Your task to perform on an android device: turn on sleep mode Image 0: 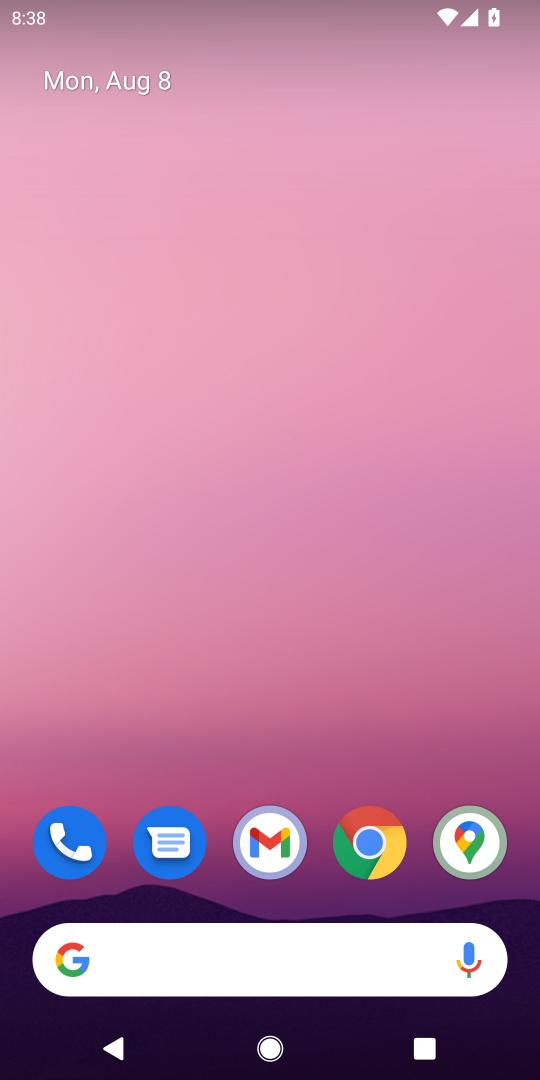
Step 0: drag from (297, 786) to (267, 232)
Your task to perform on an android device: turn on sleep mode Image 1: 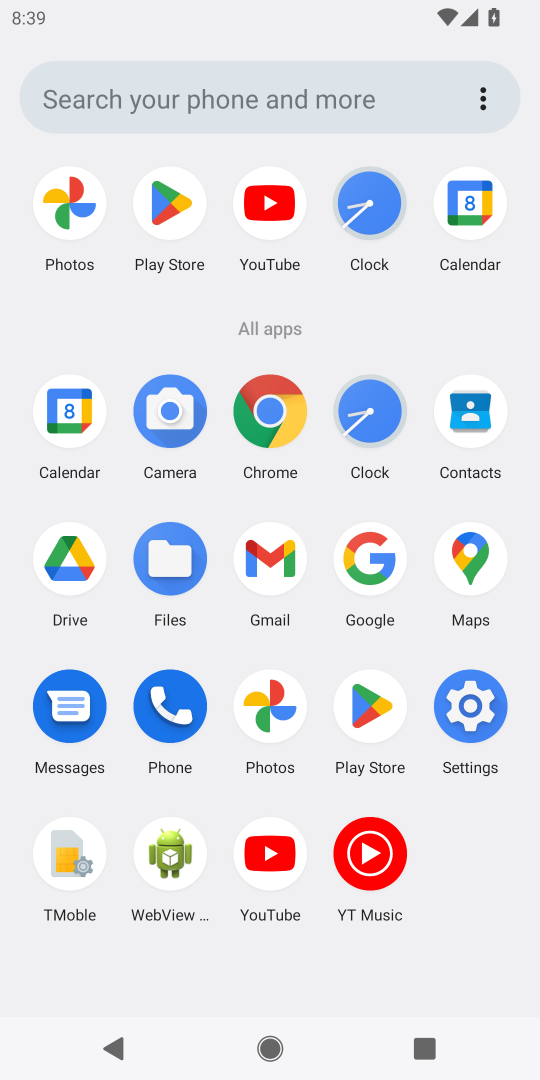
Step 1: click (465, 689)
Your task to perform on an android device: turn on sleep mode Image 2: 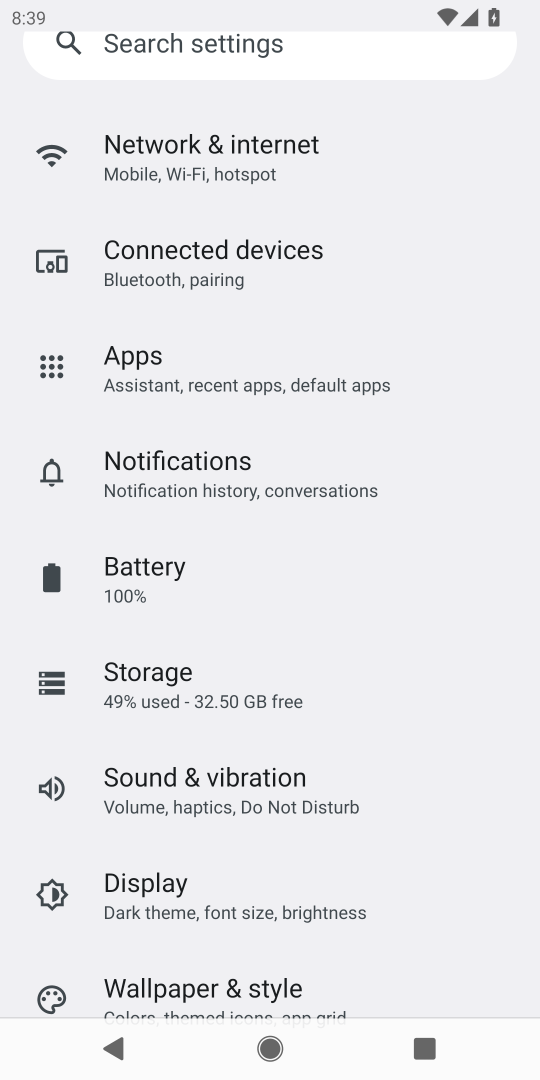
Step 2: click (192, 928)
Your task to perform on an android device: turn on sleep mode Image 3: 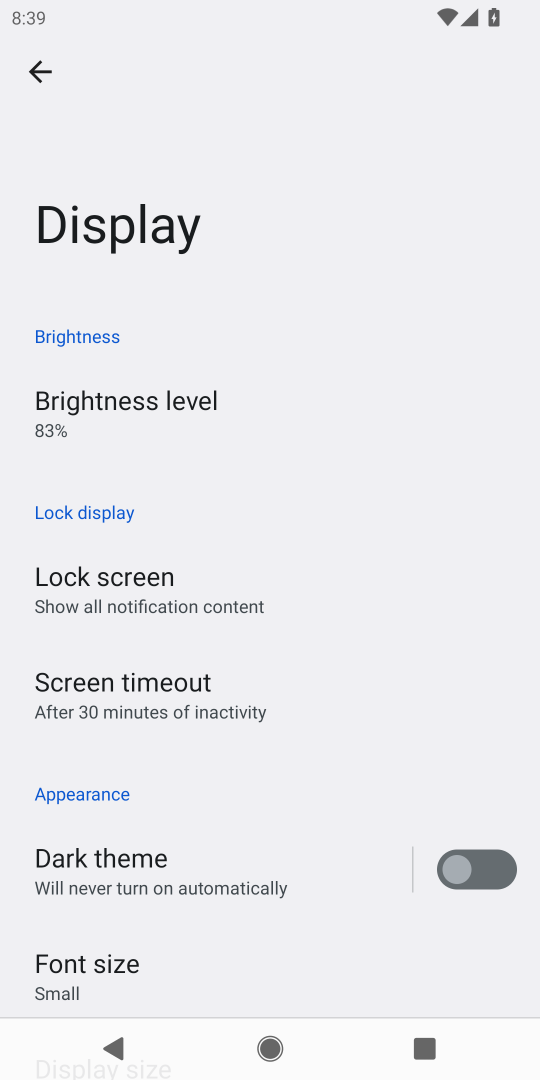
Step 3: task complete